Your task to perform on an android device: turn on sleep mode Image 0: 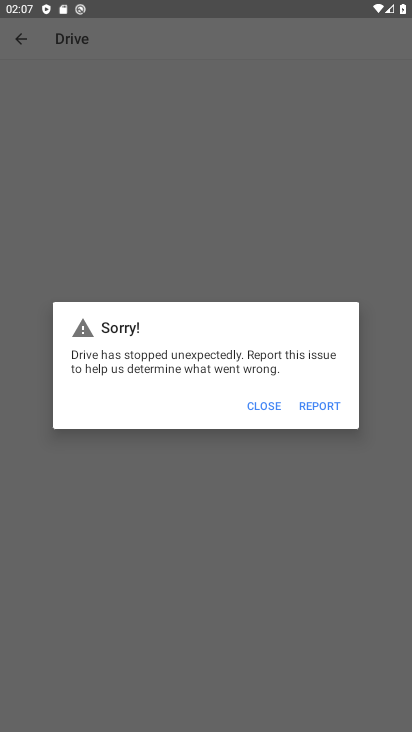
Step 0: press home button
Your task to perform on an android device: turn on sleep mode Image 1: 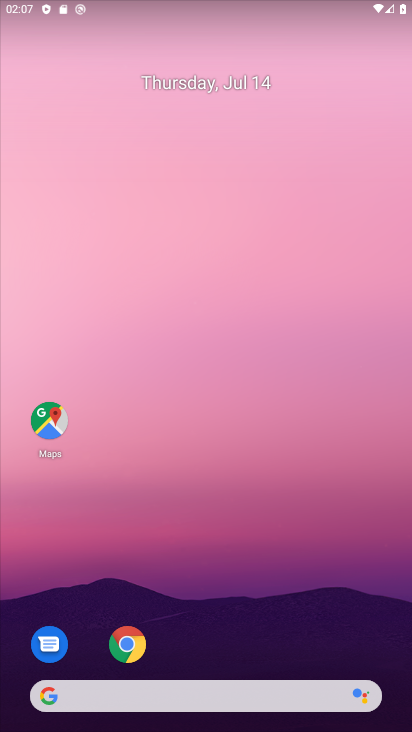
Step 1: drag from (262, 583) to (268, 2)
Your task to perform on an android device: turn on sleep mode Image 2: 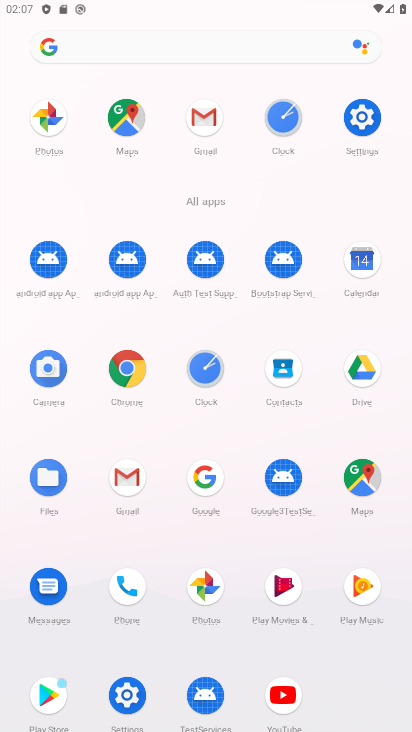
Step 2: drag from (274, 5) to (288, 720)
Your task to perform on an android device: turn on sleep mode Image 3: 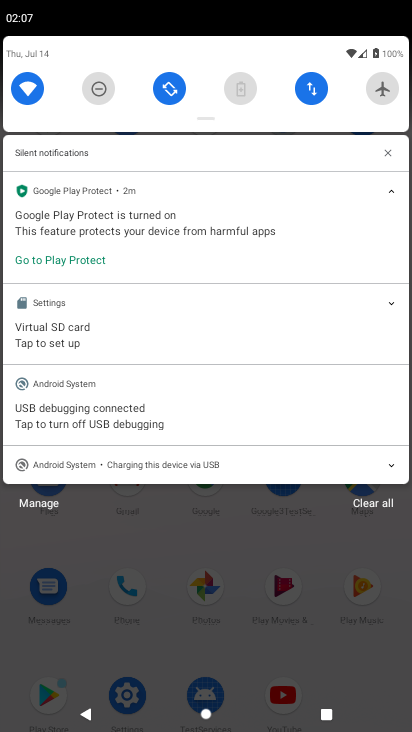
Step 3: drag from (194, 119) to (149, 678)
Your task to perform on an android device: turn on sleep mode Image 4: 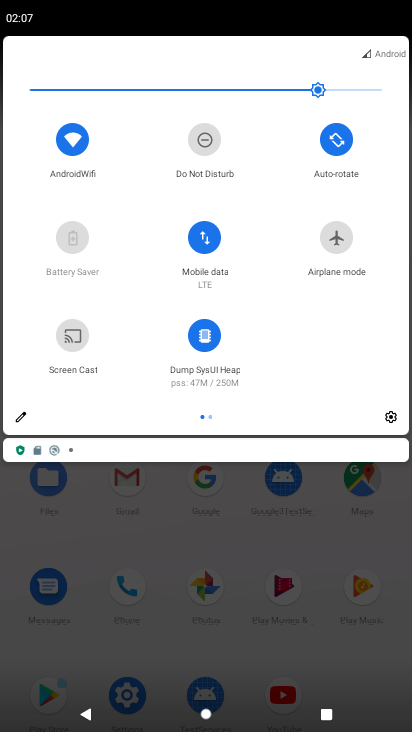
Step 4: click (21, 420)
Your task to perform on an android device: turn on sleep mode Image 5: 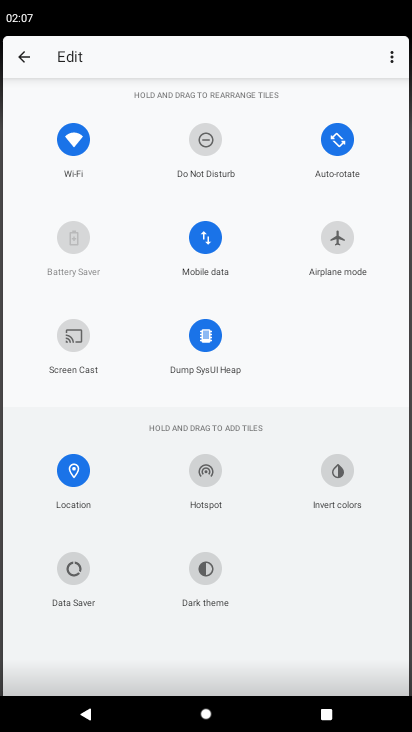
Step 5: click (205, 140)
Your task to perform on an android device: turn on sleep mode Image 6: 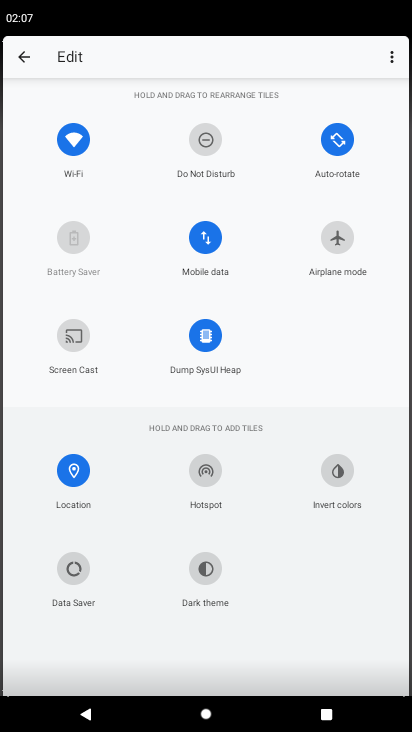
Step 6: task complete